Your task to perform on an android device: Open settings Image 0: 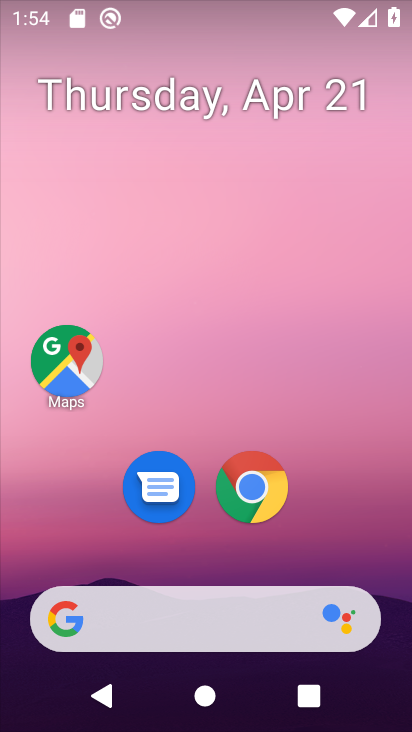
Step 0: click (299, 118)
Your task to perform on an android device: Open settings Image 1: 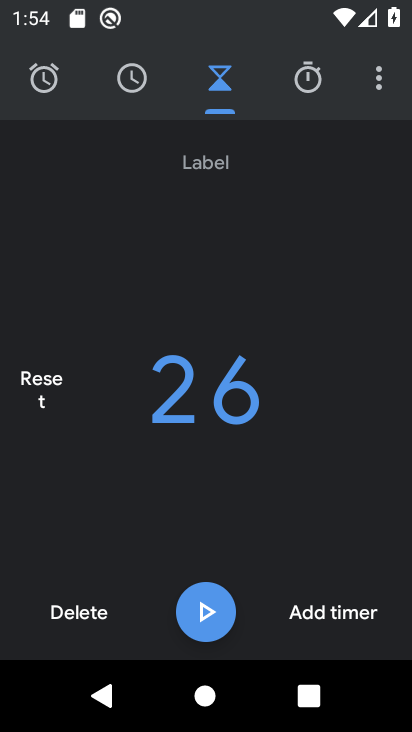
Step 1: press home button
Your task to perform on an android device: Open settings Image 2: 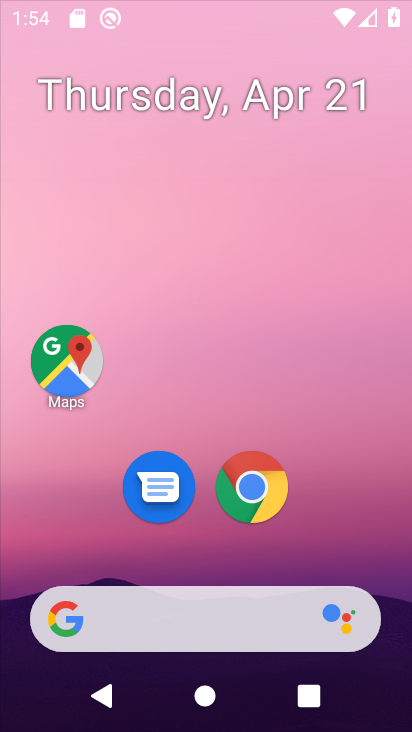
Step 2: drag from (248, 506) to (342, 6)
Your task to perform on an android device: Open settings Image 3: 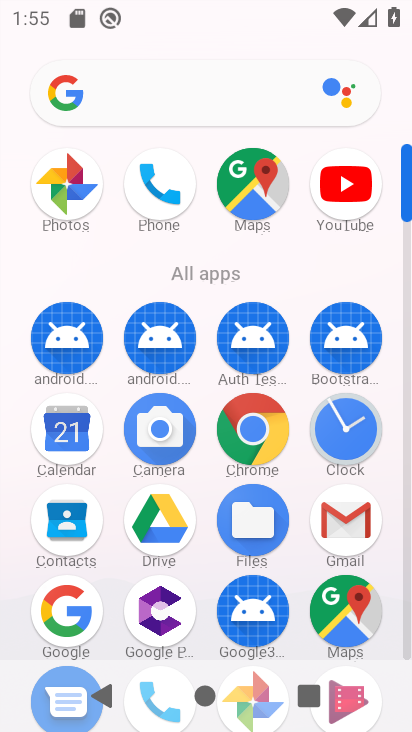
Step 3: drag from (206, 586) to (278, 109)
Your task to perform on an android device: Open settings Image 4: 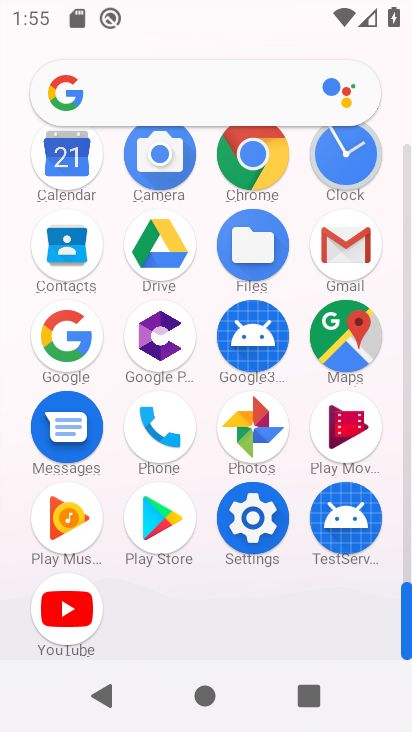
Step 4: click (255, 496)
Your task to perform on an android device: Open settings Image 5: 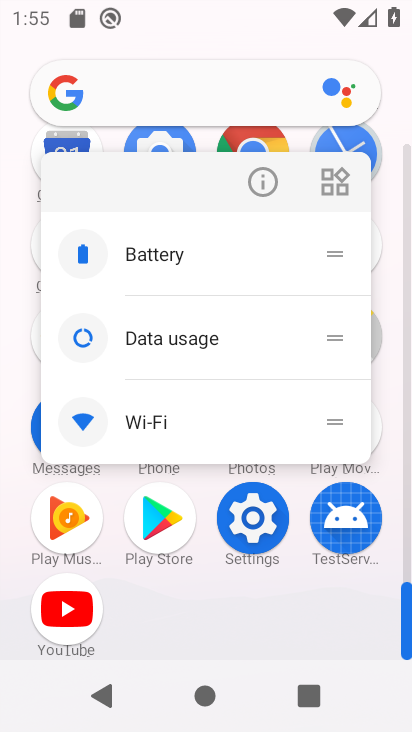
Step 5: click (285, 175)
Your task to perform on an android device: Open settings Image 6: 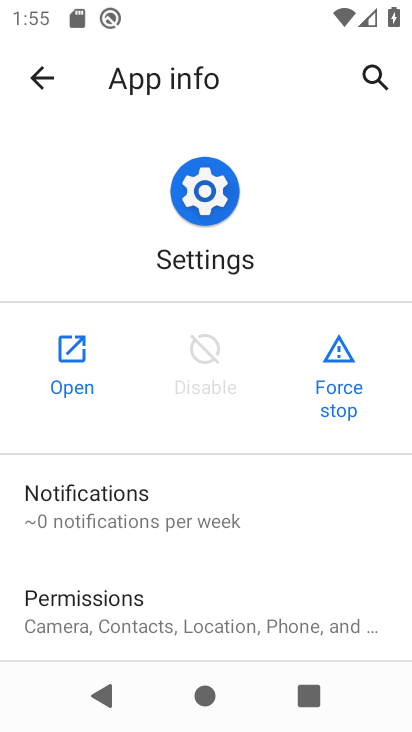
Step 6: click (78, 356)
Your task to perform on an android device: Open settings Image 7: 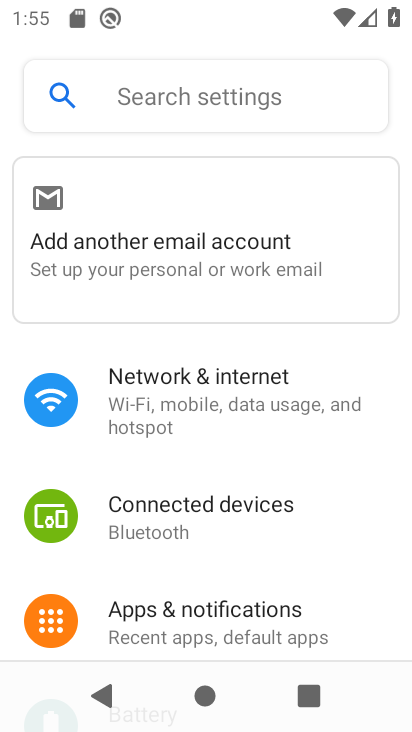
Step 7: task complete